Your task to perform on an android device: Turn off the flashlight Image 0: 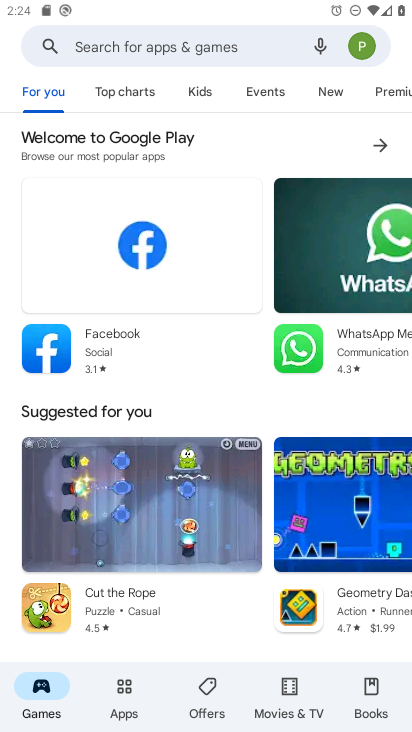
Step 0: press home button
Your task to perform on an android device: Turn off the flashlight Image 1: 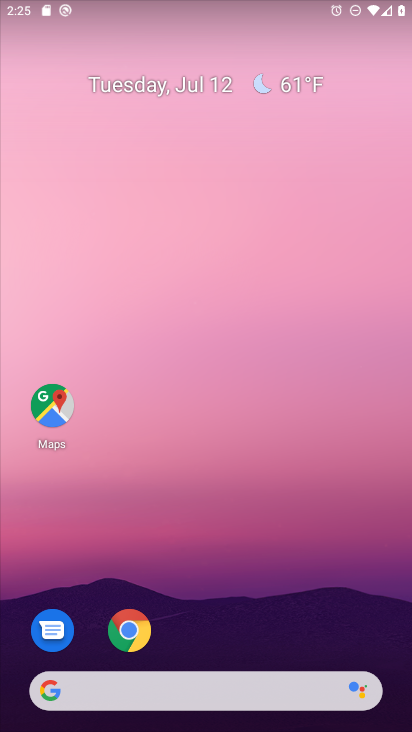
Step 1: drag from (212, 654) to (235, 224)
Your task to perform on an android device: Turn off the flashlight Image 2: 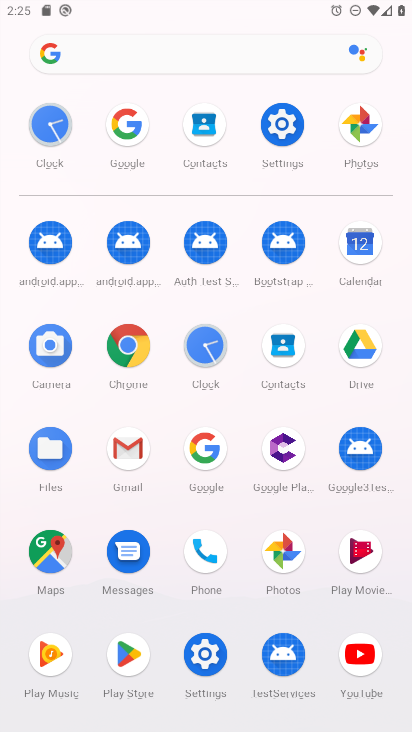
Step 2: click (273, 106)
Your task to perform on an android device: Turn off the flashlight Image 3: 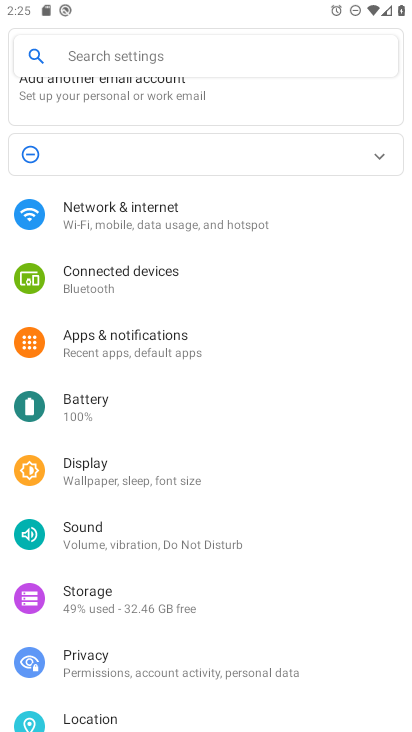
Step 3: task complete